Your task to perform on an android device: What's the weather today? Image 0: 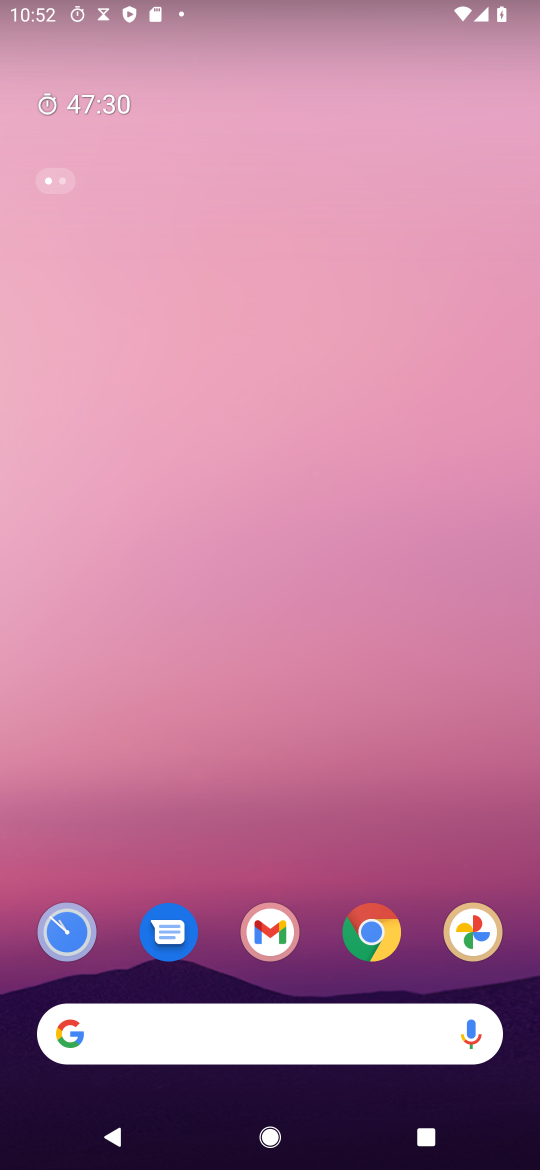
Step 0: drag from (383, 805) to (411, 95)
Your task to perform on an android device: What's the weather today? Image 1: 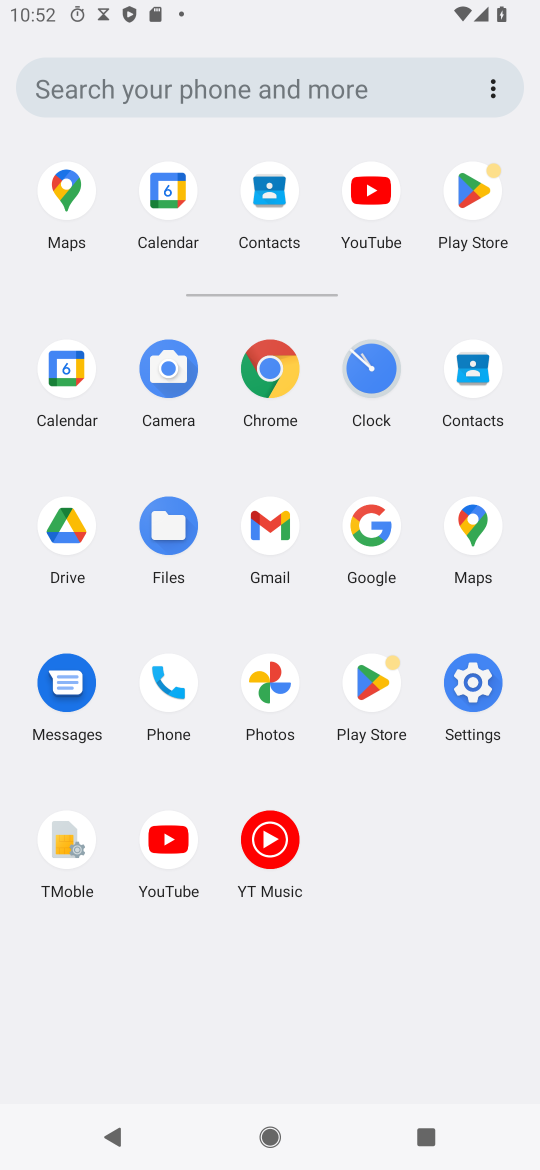
Step 1: click (272, 373)
Your task to perform on an android device: What's the weather today? Image 2: 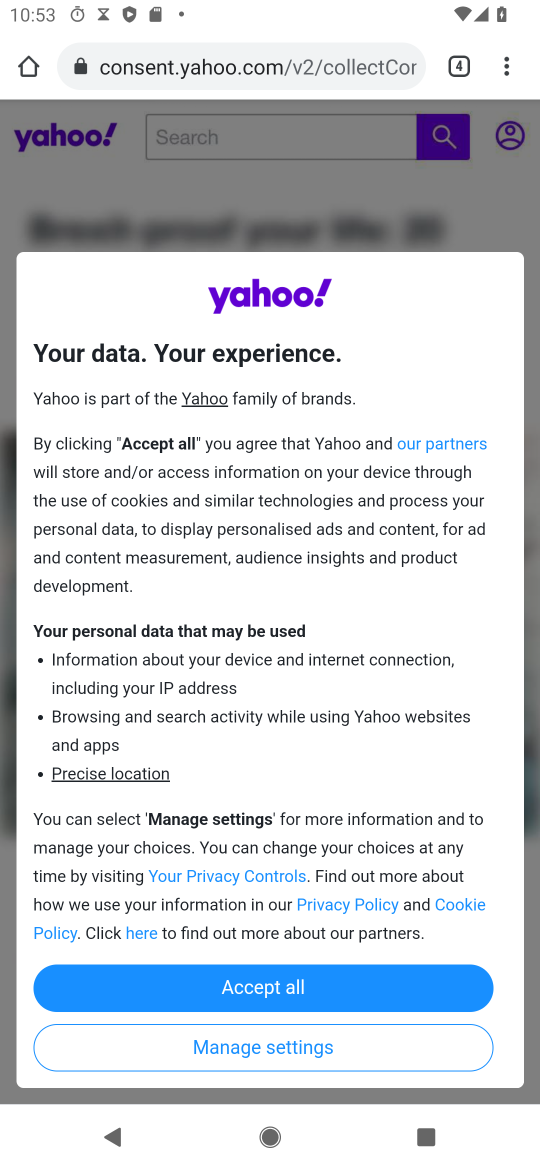
Step 2: click (348, 57)
Your task to perform on an android device: What's the weather today? Image 3: 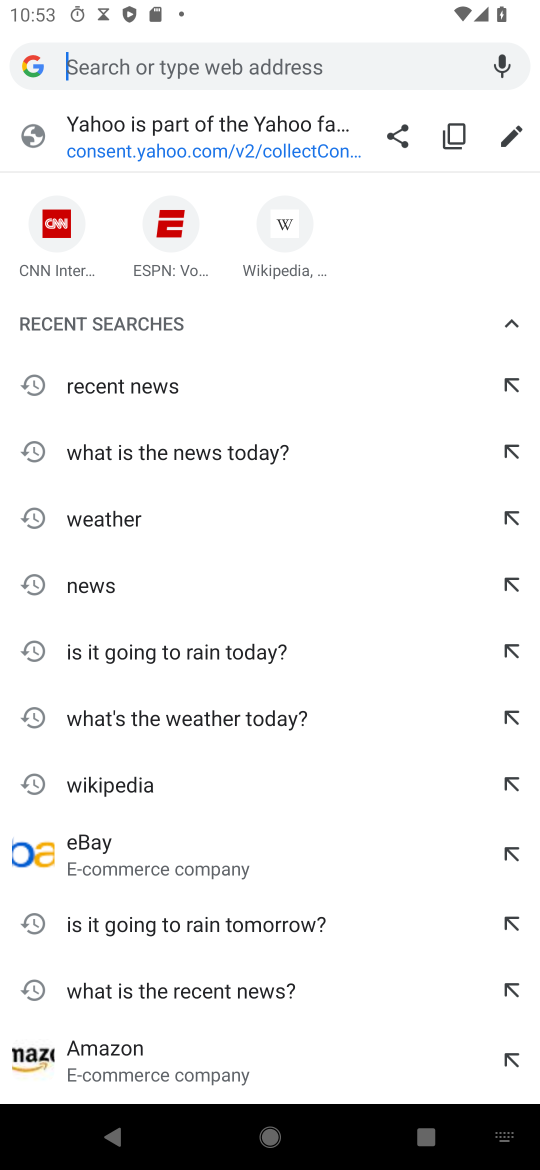
Step 3: type "What's the weather today?"
Your task to perform on an android device: What's the weather today? Image 4: 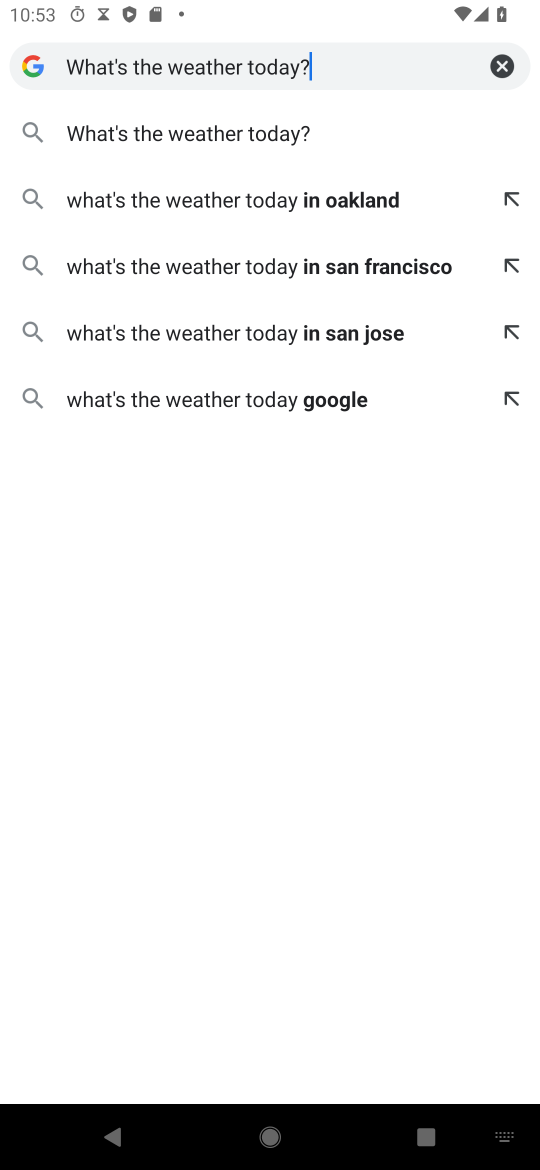
Step 4: click (241, 137)
Your task to perform on an android device: What's the weather today? Image 5: 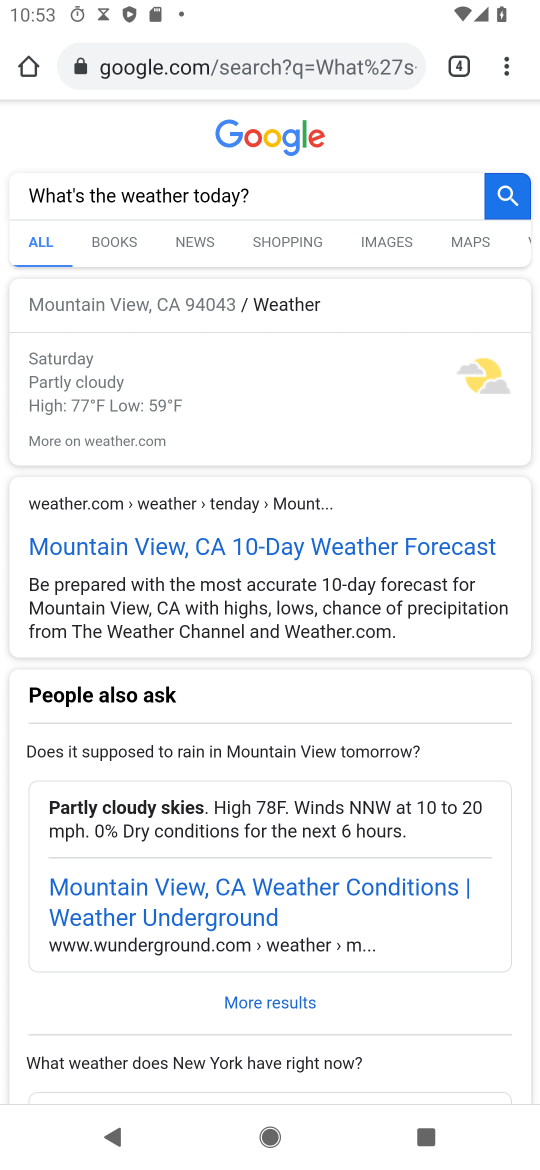
Step 5: task complete